Your task to perform on an android device: turn smart compose on in the gmail app Image 0: 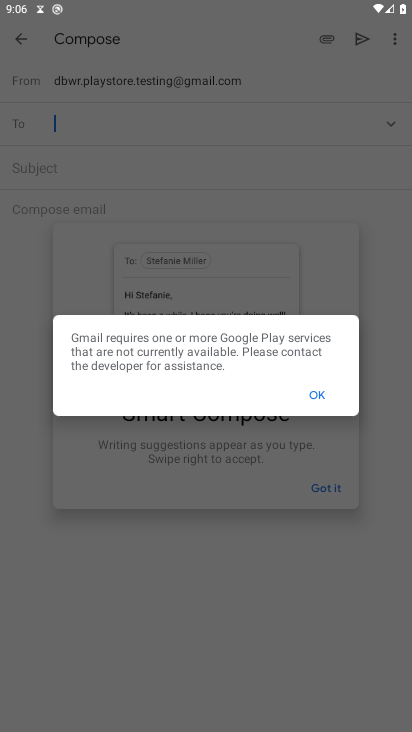
Step 0: click (314, 400)
Your task to perform on an android device: turn smart compose on in the gmail app Image 1: 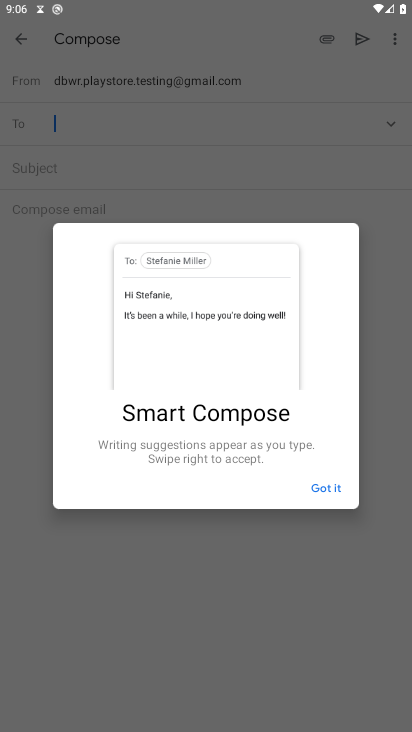
Step 1: press home button
Your task to perform on an android device: turn smart compose on in the gmail app Image 2: 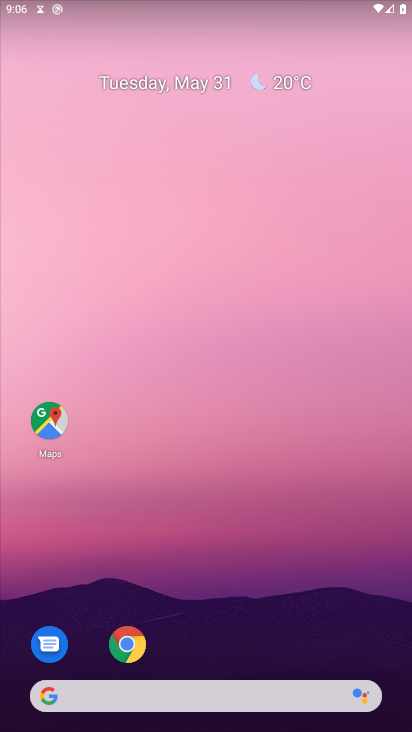
Step 2: drag from (206, 618) to (224, 153)
Your task to perform on an android device: turn smart compose on in the gmail app Image 3: 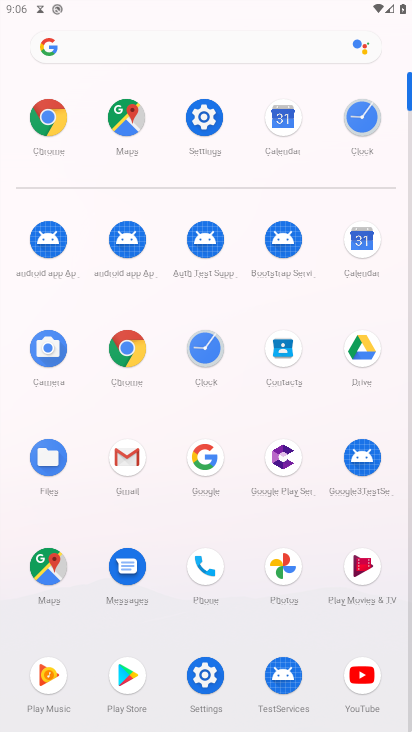
Step 3: click (129, 459)
Your task to perform on an android device: turn smart compose on in the gmail app Image 4: 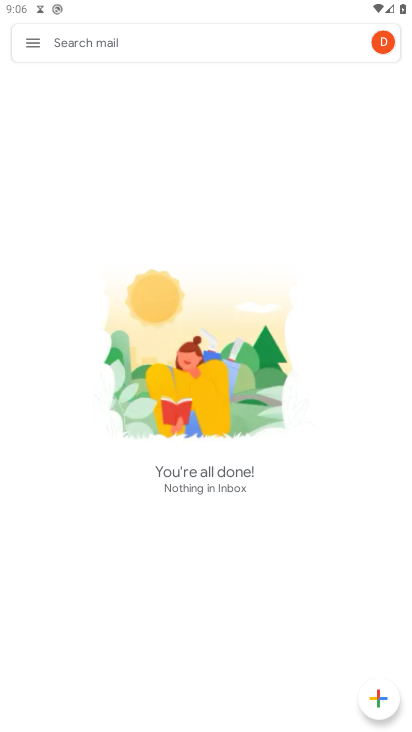
Step 4: click (29, 36)
Your task to perform on an android device: turn smart compose on in the gmail app Image 5: 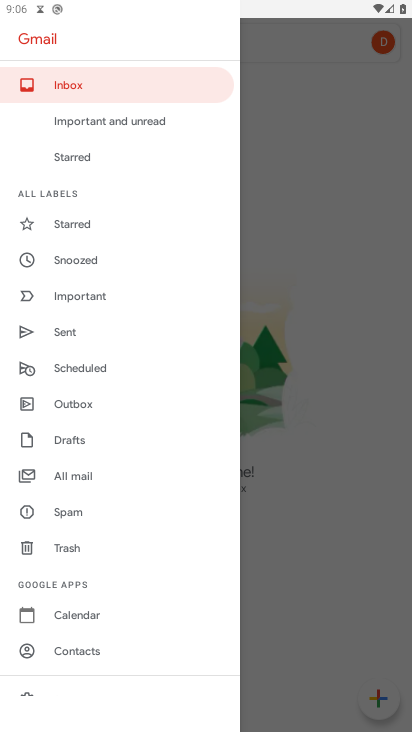
Step 5: drag from (109, 624) to (108, 88)
Your task to perform on an android device: turn smart compose on in the gmail app Image 6: 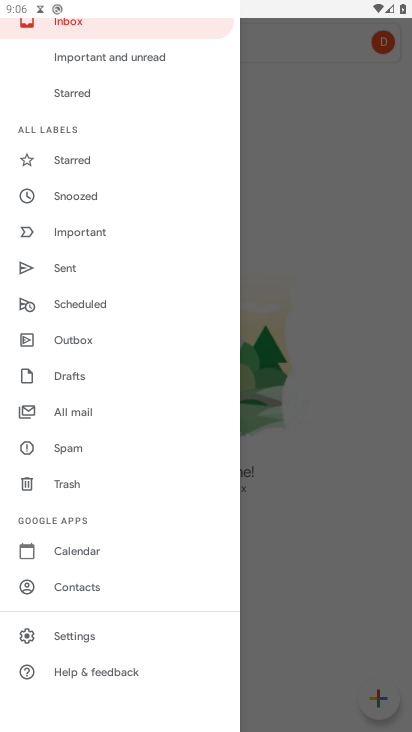
Step 6: click (101, 628)
Your task to perform on an android device: turn smart compose on in the gmail app Image 7: 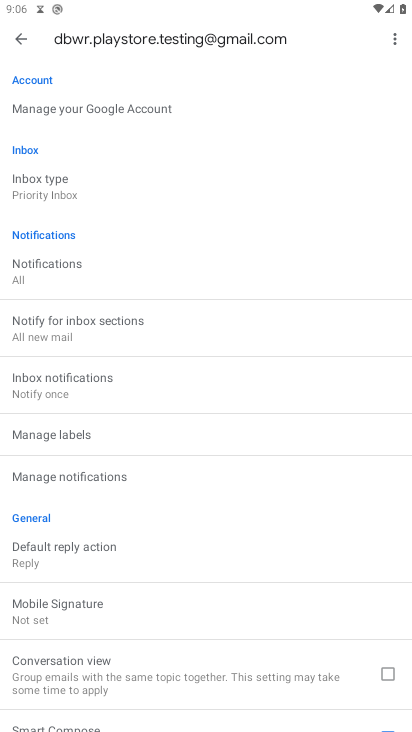
Step 7: task complete